Your task to perform on an android device: Open Yahoo.com Image 0: 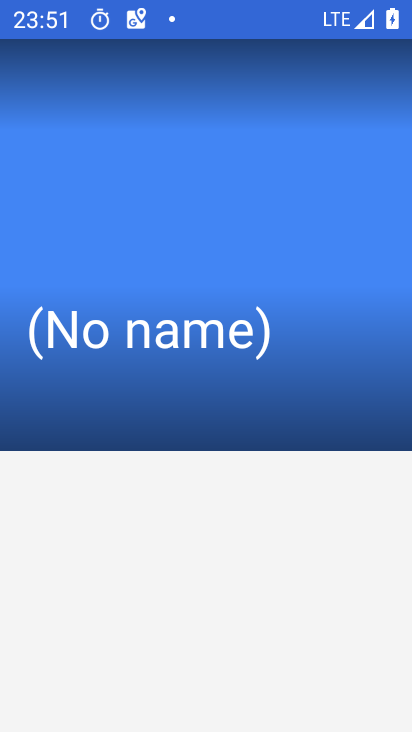
Step 0: drag from (218, 592) to (378, 193)
Your task to perform on an android device: Open Yahoo.com Image 1: 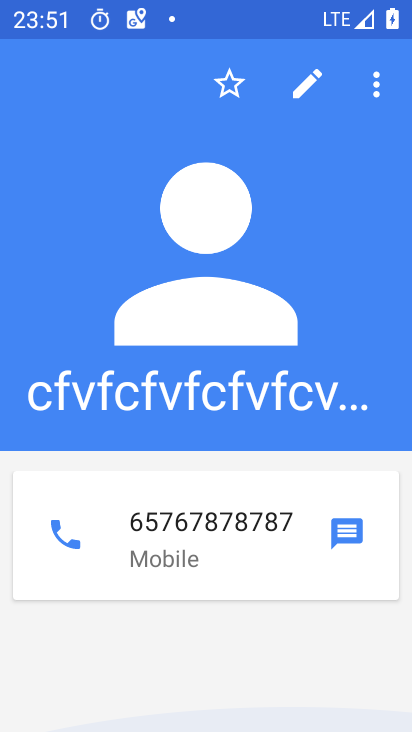
Step 1: press home button
Your task to perform on an android device: Open Yahoo.com Image 2: 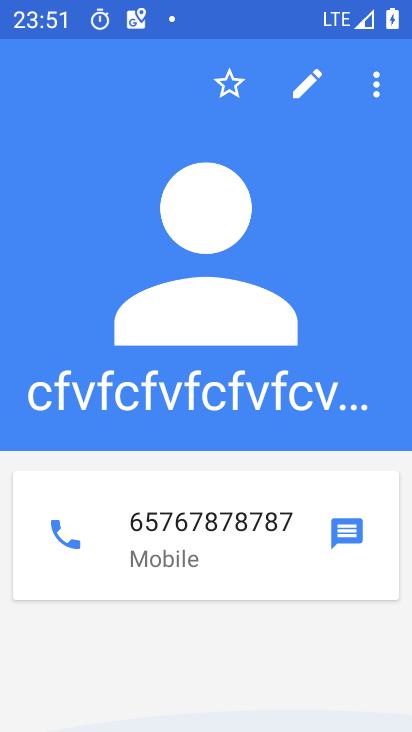
Step 2: click (396, 500)
Your task to perform on an android device: Open Yahoo.com Image 3: 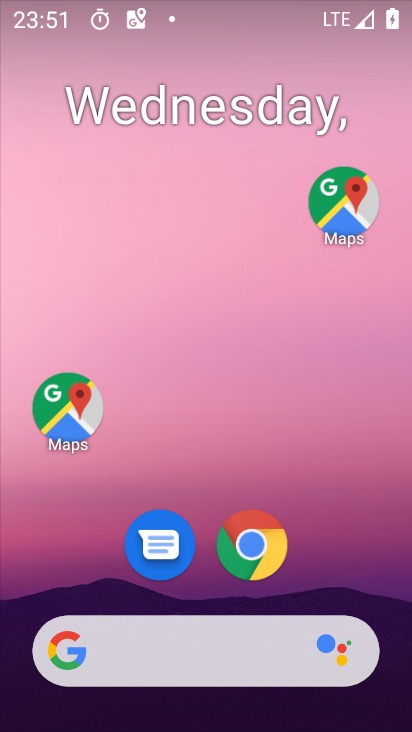
Step 3: click (238, 551)
Your task to perform on an android device: Open Yahoo.com Image 4: 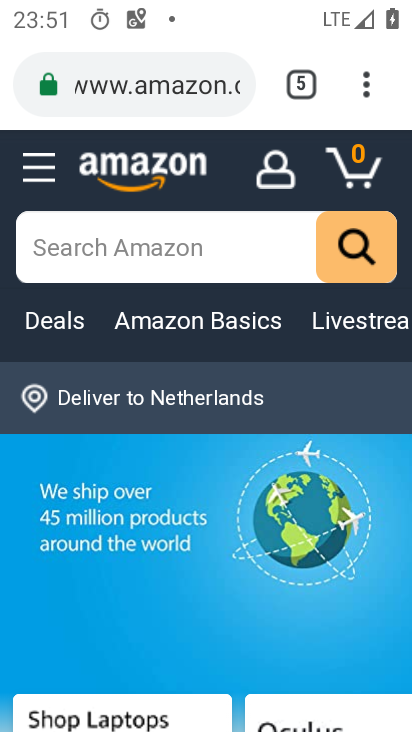
Step 4: click (163, 90)
Your task to perform on an android device: Open Yahoo.com Image 5: 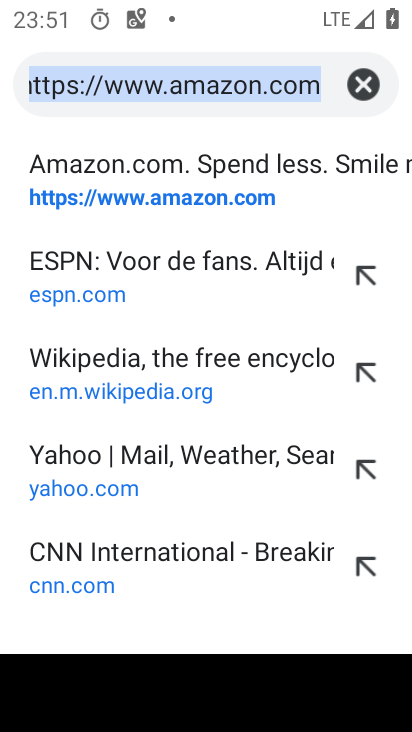
Step 5: type "yahoo.com"
Your task to perform on an android device: Open Yahoo.com Image 6: 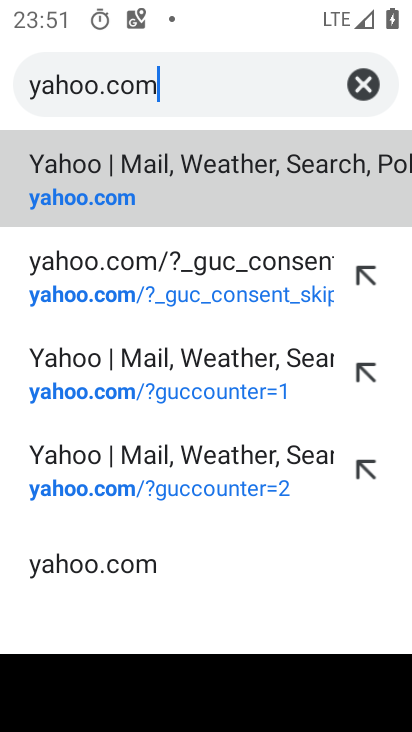
Step 6: click (79, 195)
Your task to perform on an android device: Open Yahoo.com Image 7: 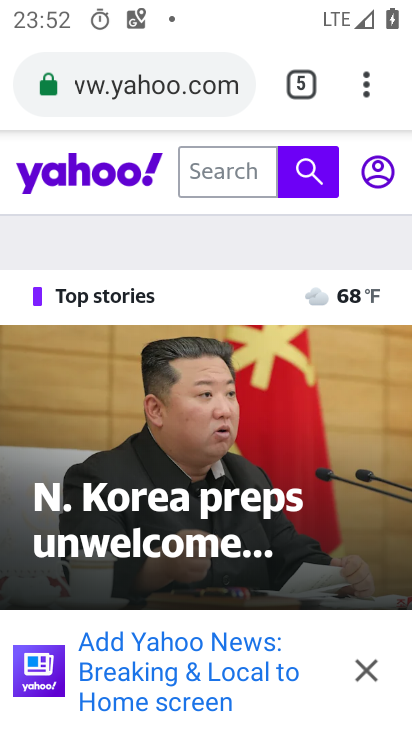
Step 7: task complete